Your task to perform on an android device: What's on my calendar tomorrow? Image 0: 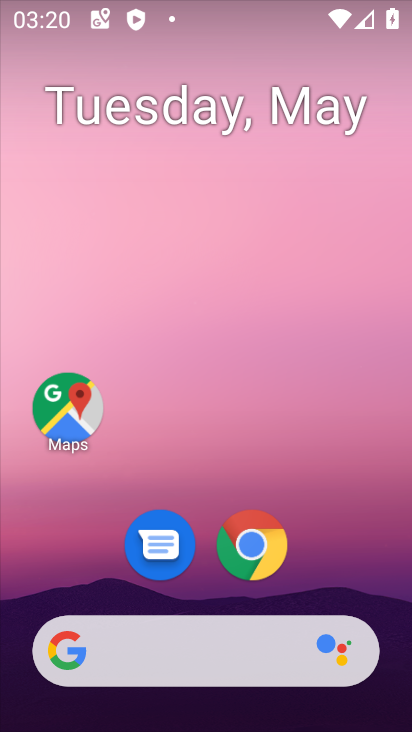
Step 0: drag from (391, 605) to (312, 94)
Your task to perform on an android device: What's on my calendar tomorrow? Image 1: 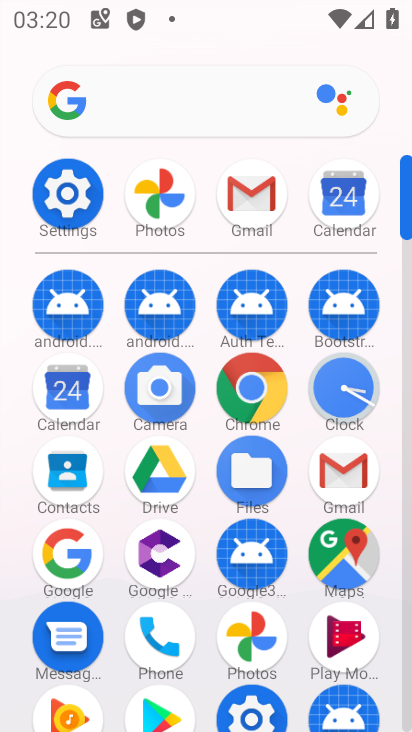
Step 1: click (69, 386)
Your task to perform on an android device: What's on my calendar tomorrow? Image 2: 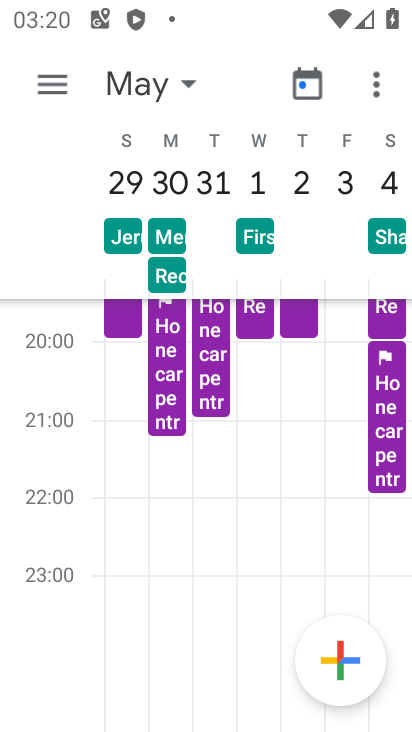
Step 2: click (54, 82)
Your task to perform on an android device: What's on my calendar tomorrow? Image 3: 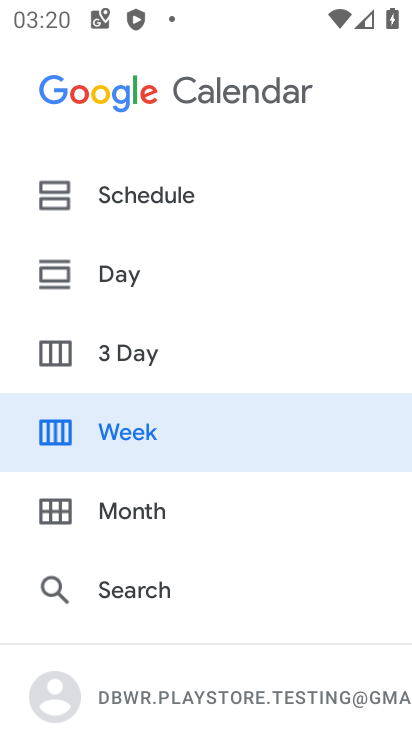
Step 3: click (120, 277)
Your task to perform on an android device: What's on my calendar tomorrow? Image 4: 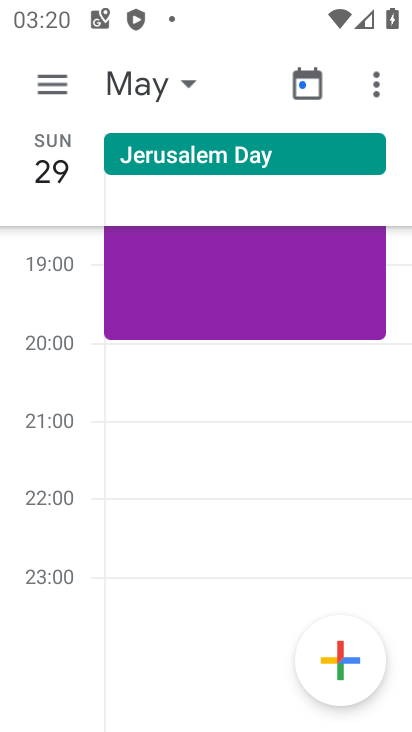
Step 4: click (184, 85)
Your task to perform on an android device: What's on my calendar tomorrow? Image 5: 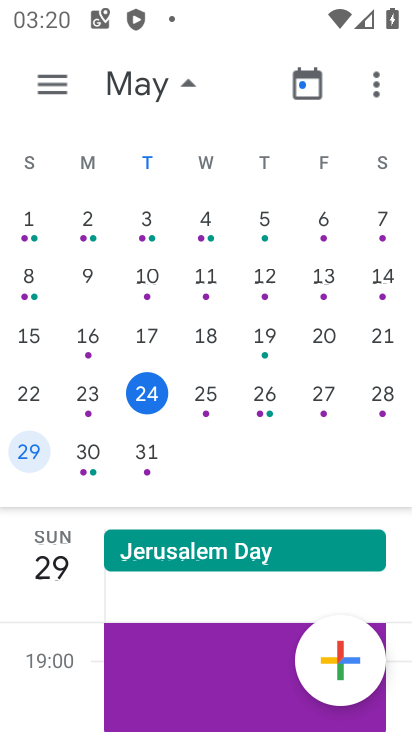
Step 5: click (207, 402)
Your task to perform on an android device: What's on my calendar tomorrow? Image 6: 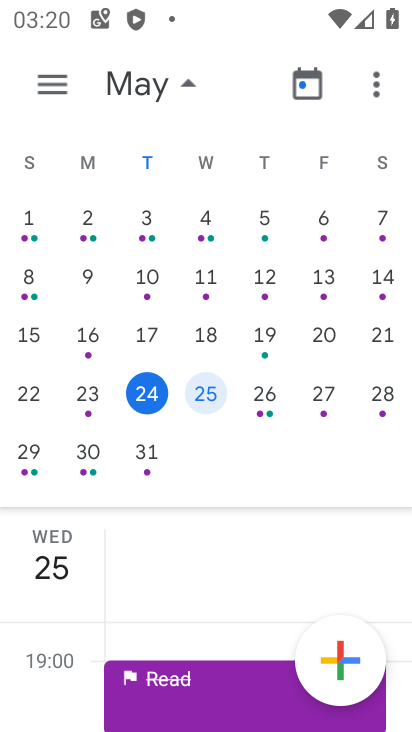
Step 6: task complete